Your task to perform on an android device: Show the shopping cart on amazon.com. Search for "usb-a" on amazon.com, select the first entry, add it to the cart, then select checkout. Image 0: 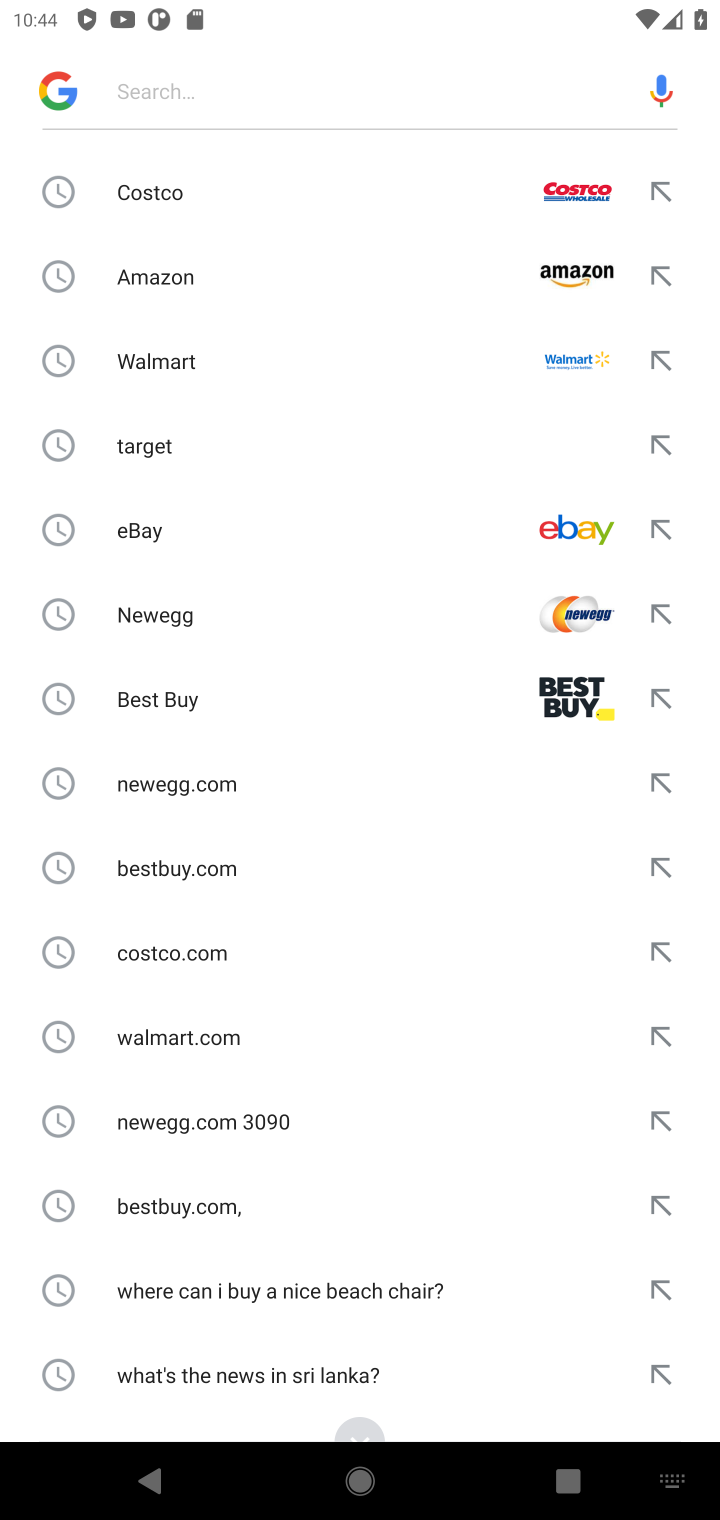
Step 0: click (194, 289)
Your task to perform on an android device: Show the shopping cart on amazon.com. Search for "usb-a" on amazon.com, select the first entry, add it to the cart, then select checkout. Image 1: 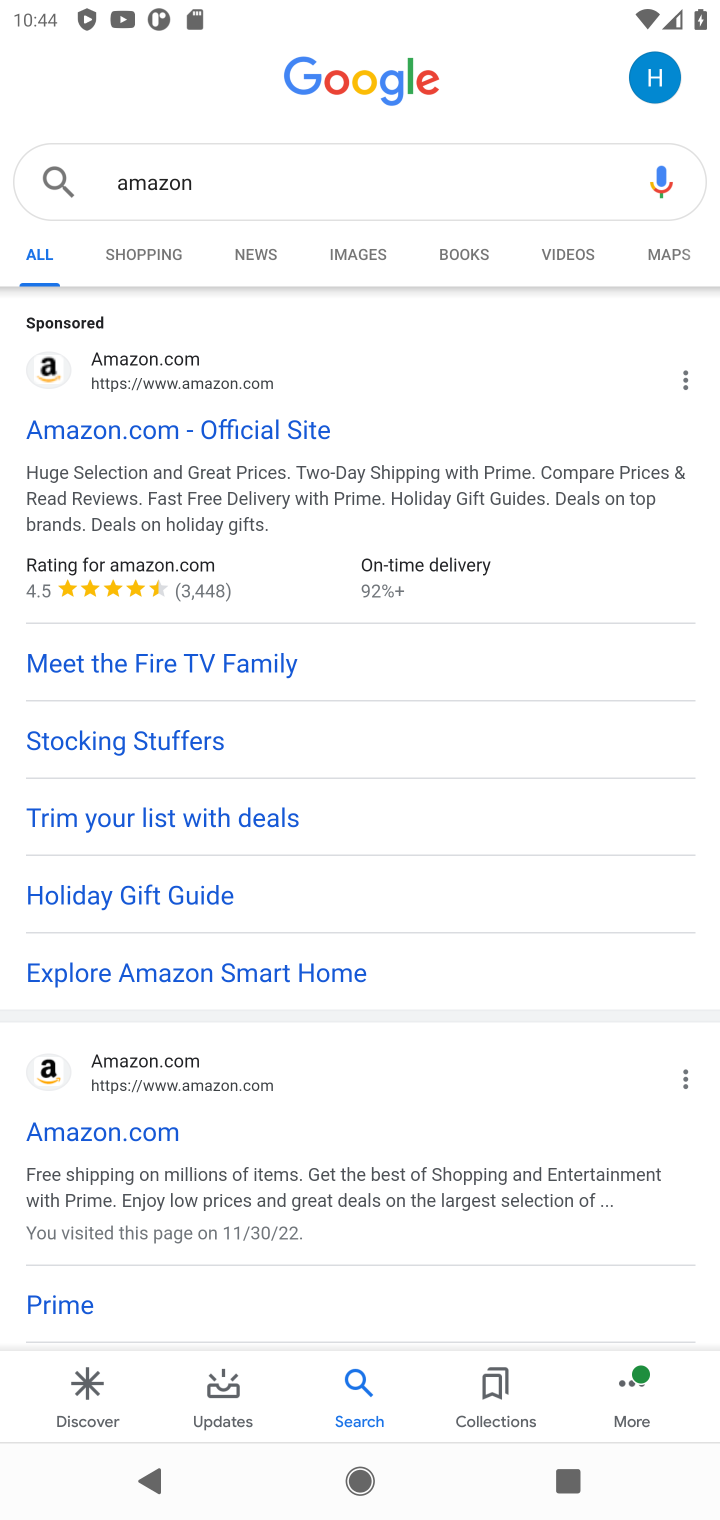
Step 1: click (176, 436)
Your task to perform on an android device: Show the shopping cart on amazon.com. Search for "usb-a" on amazon.com, select the first entry, add it to the cart, then select checkout. Image 2: 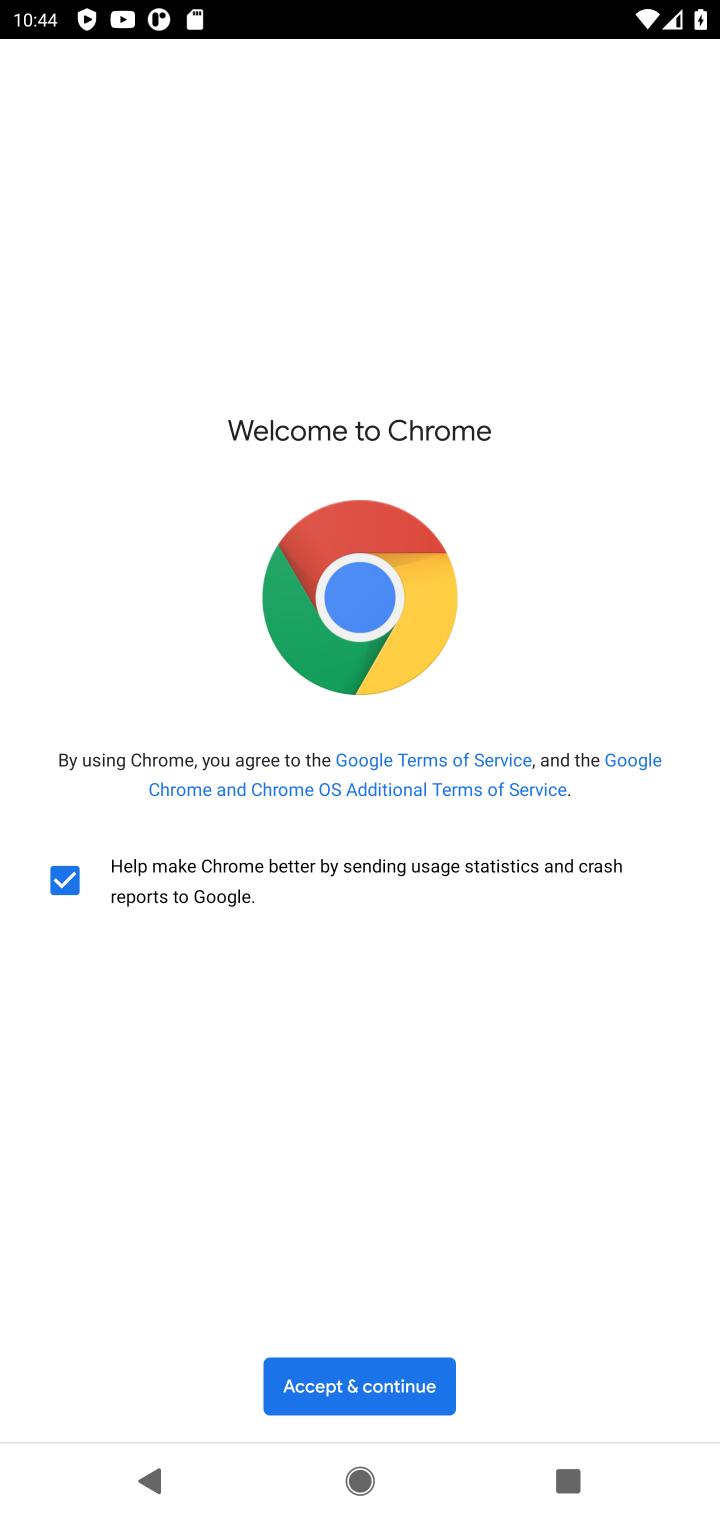
Step 2: click (333, 1391)
Your task to perform on an android device: Show the shopping cart on amazon.com. Search for "usb-a" on amazon.com, select the first entry, add it to the cart, then select checkout. Image 3: 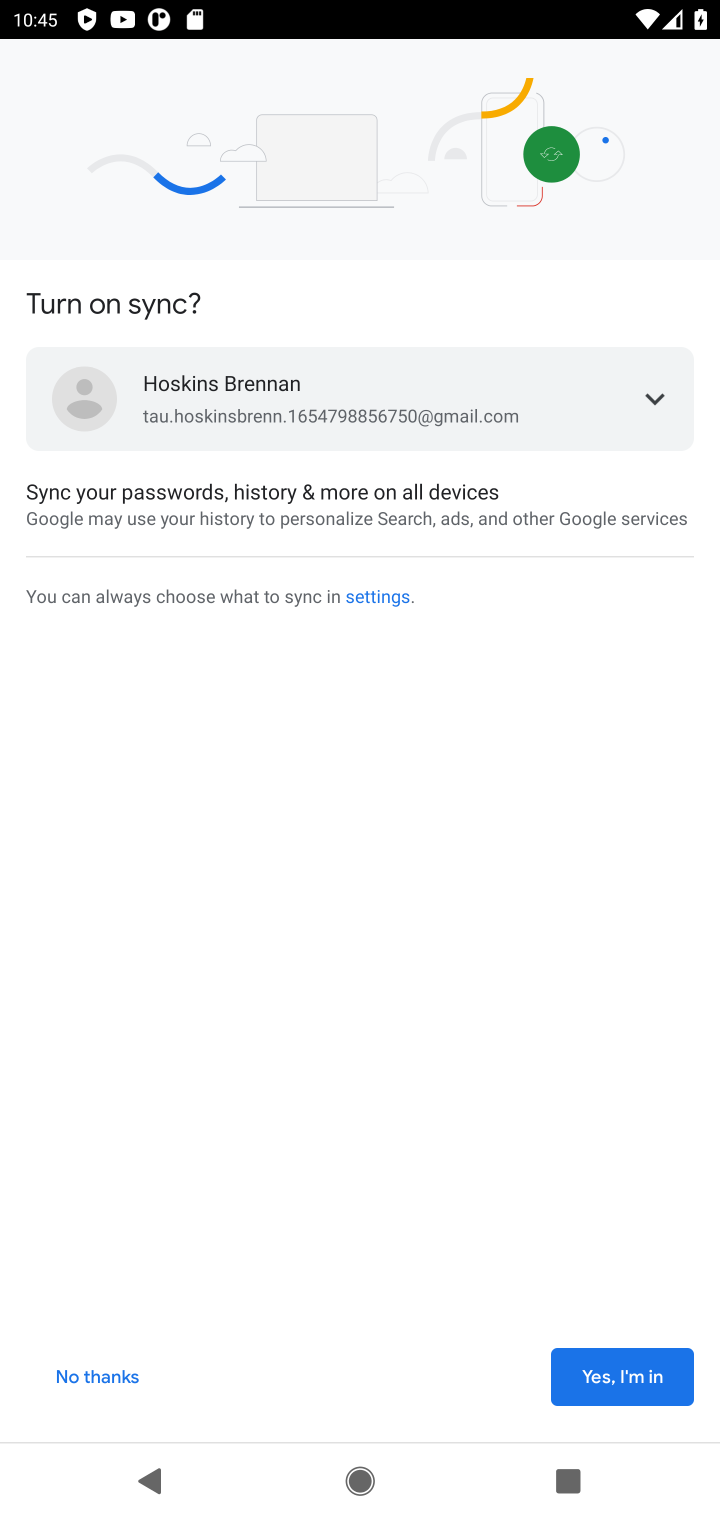
Step 3: click (604, 1372)
Your task to perform on an android device: Show the shopping cart on amazon.com. Search for "usb-a" on amazon.com, select the first entry, add it to the cart, then select checkout. Image 4: 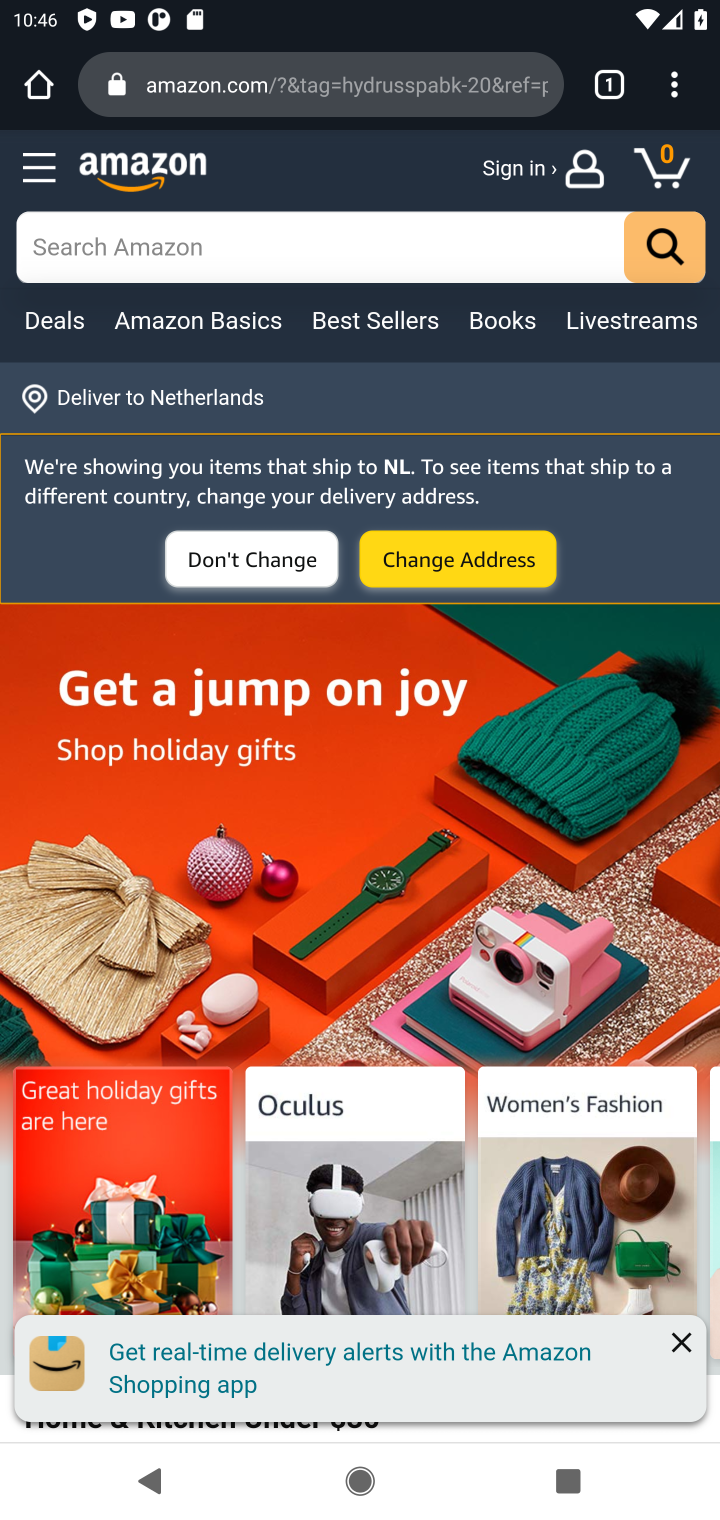
Step 4: click (304, 254)
Your task to perform on an android device: Show the shopping cart on amazon.com. Search for "usb-a" on amazon.com, select the first entry, add it to the cart, then select checkout. Image 5: 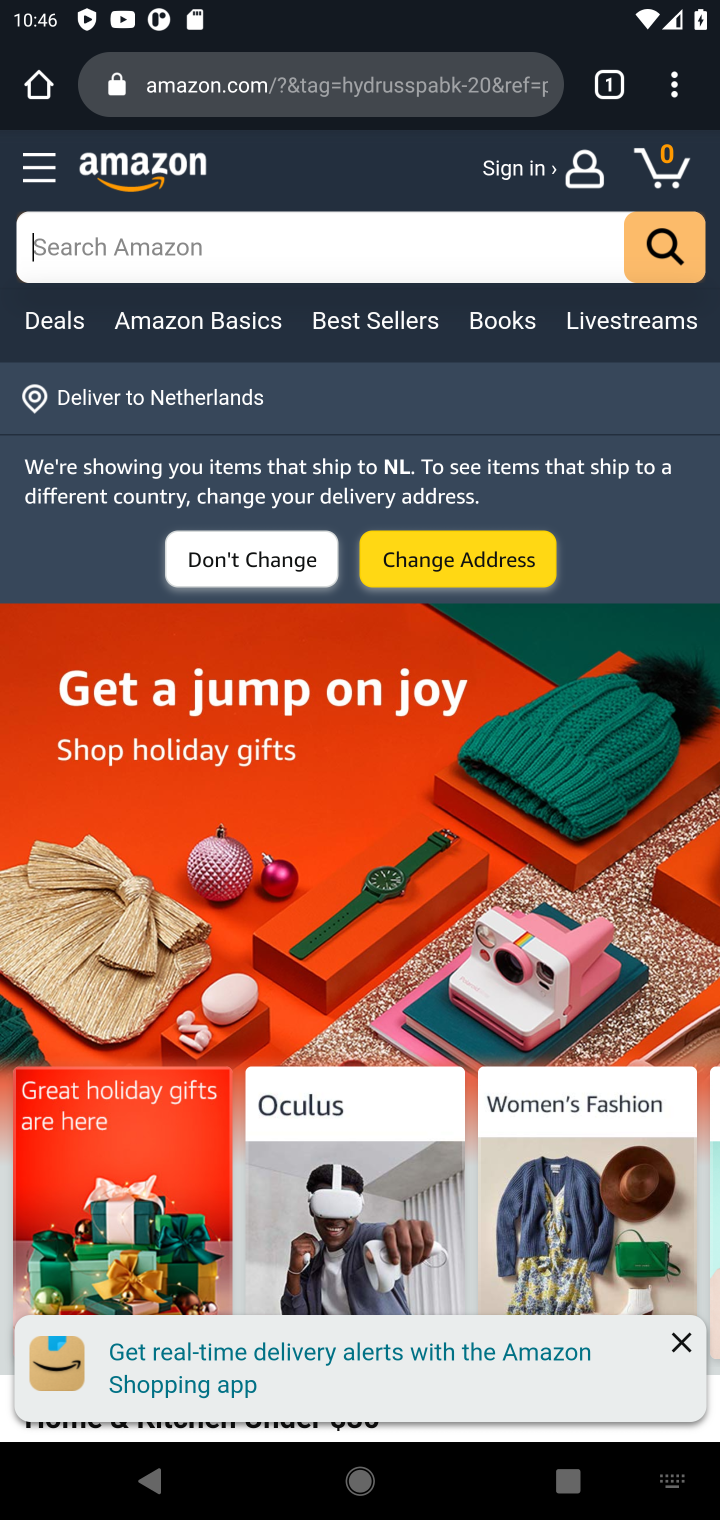
Step 5: type "usb-a"
Your task to perform on an android device: Show the shopping cart on amazon.com. Search for "usb-a" on amazon.com, select the first entry, add it to the cart, then select checkout. Image 6: 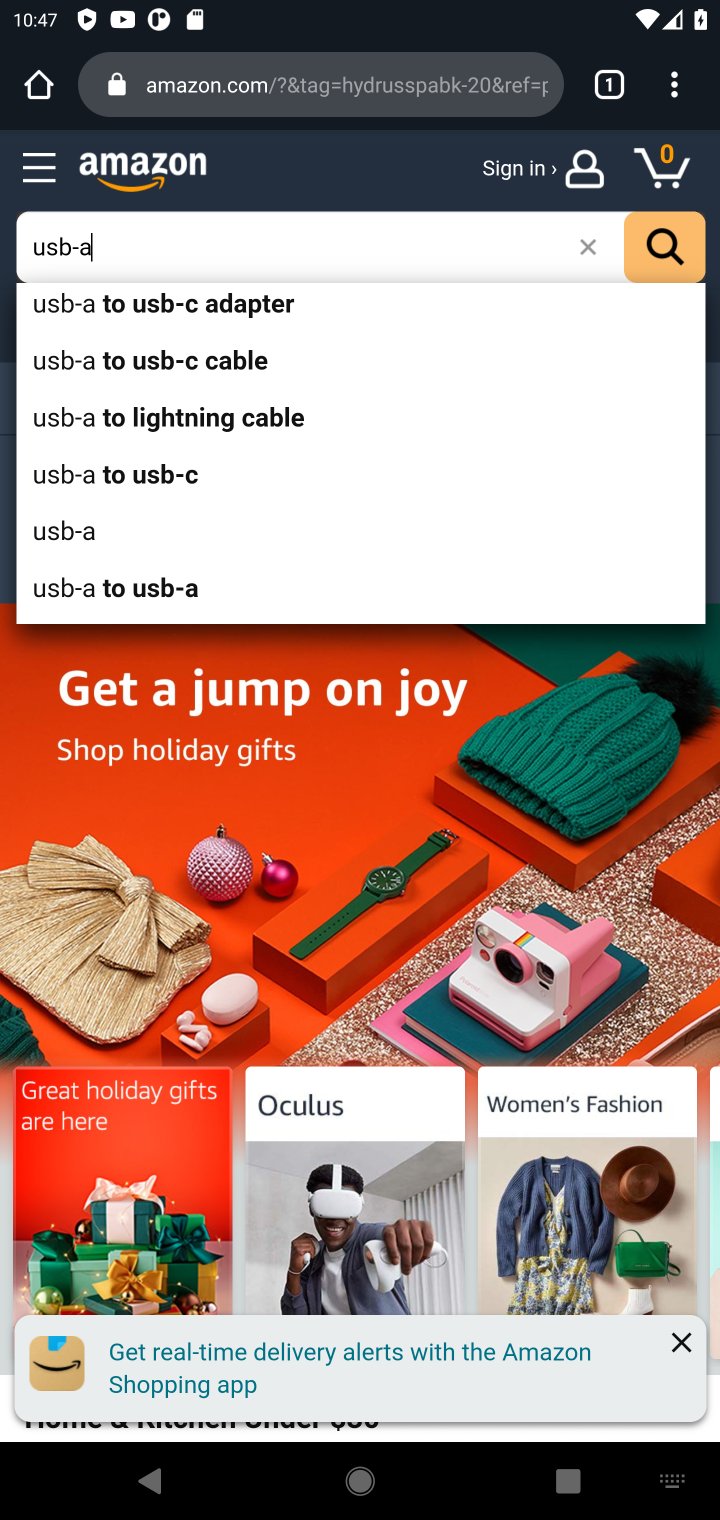
Step 6: click (285, 312)
Your task to perform on an android device: Show the shopping cart on amazon.com. Search for "usb-a" on amazon.com, select the first entry, add it to the cart, then select checkout. Image 7: 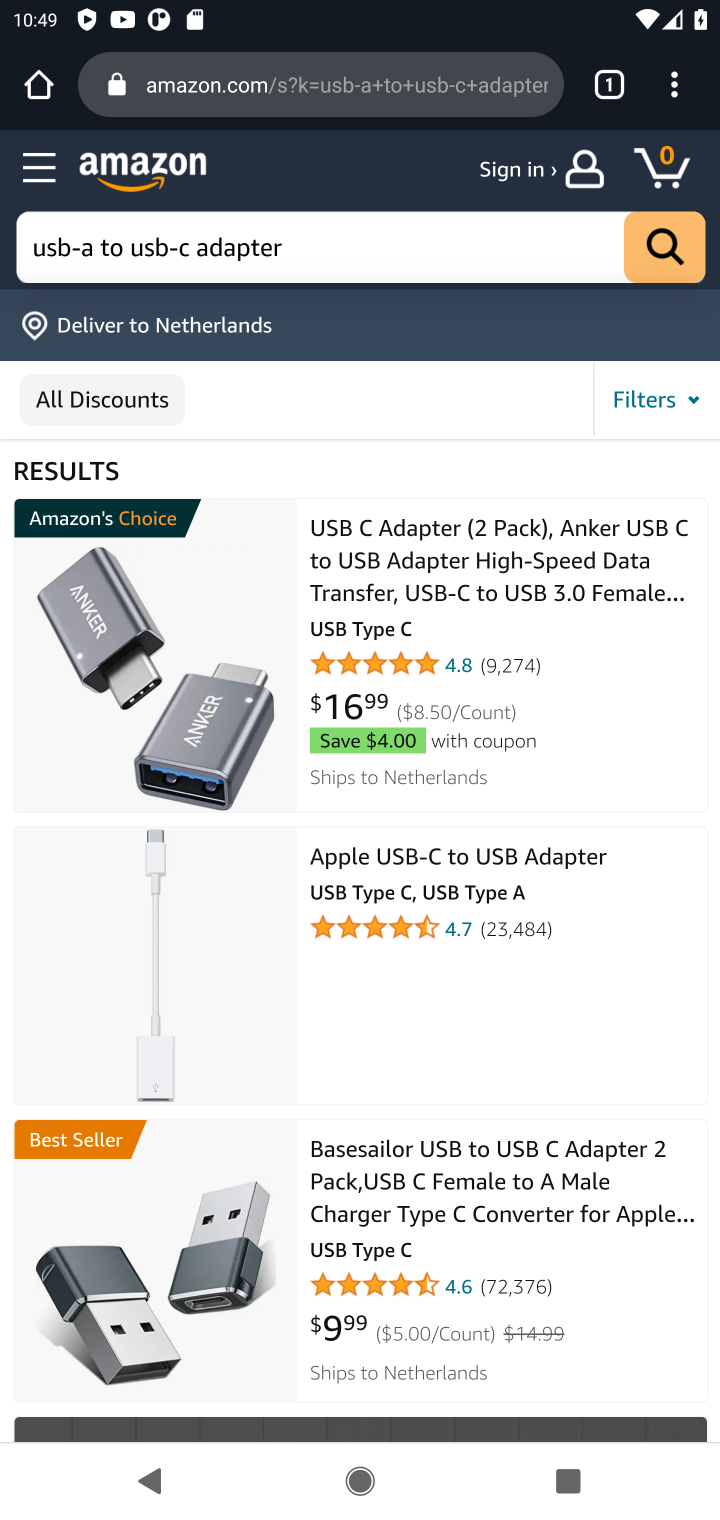
Step 7: click (460, 624)
Your task to perform on an android device: Show the shopping cart on amazon.com. Search for "usb-a" on amazon.com, select the first entry, add it to the cart, then select checkout. Image 8: 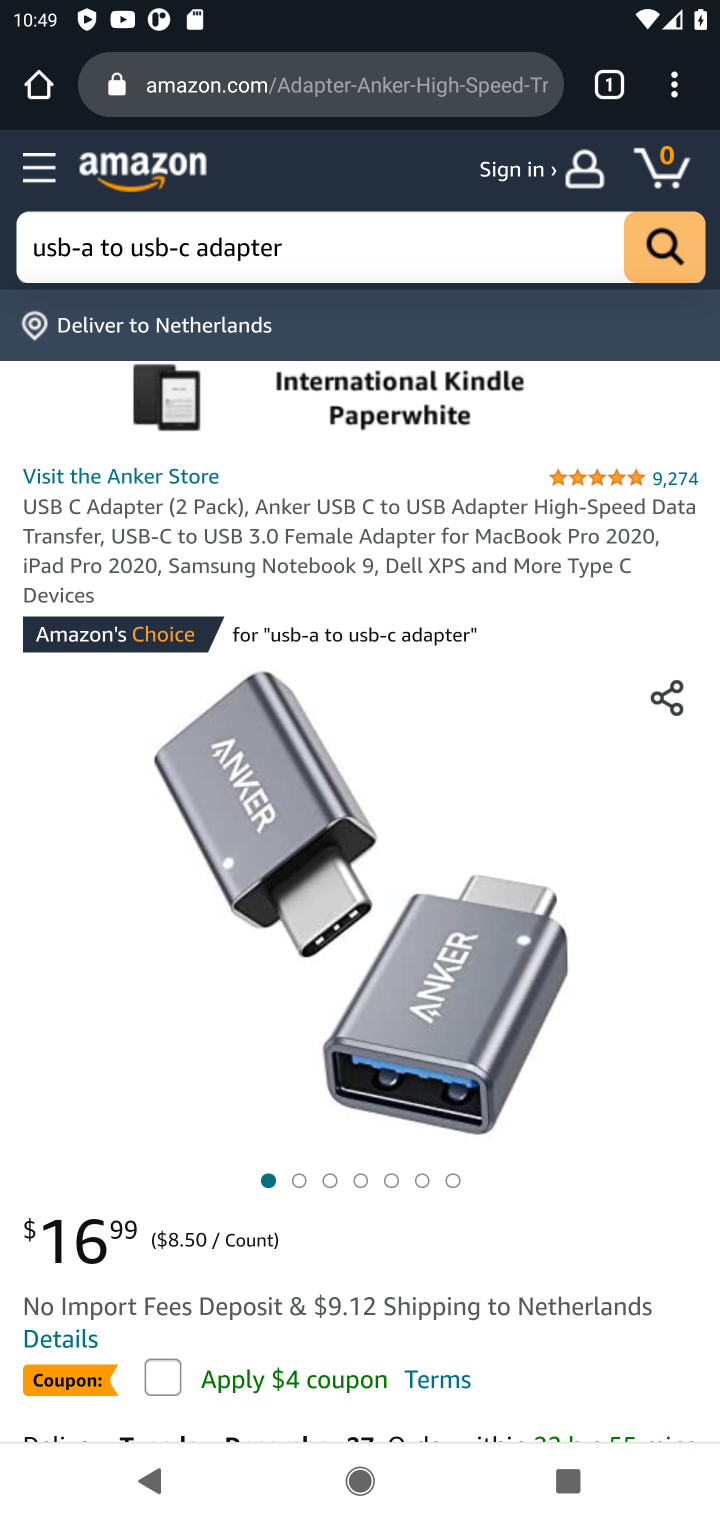
Step 8: drag from (603, 1227) to (437, 347)
Your task to perform on an android device: Show the shopping cart on amazon.com. Search for "usb-a" on amazon.com, select the first entry, add it to the cart, then select checkout. Image 9: 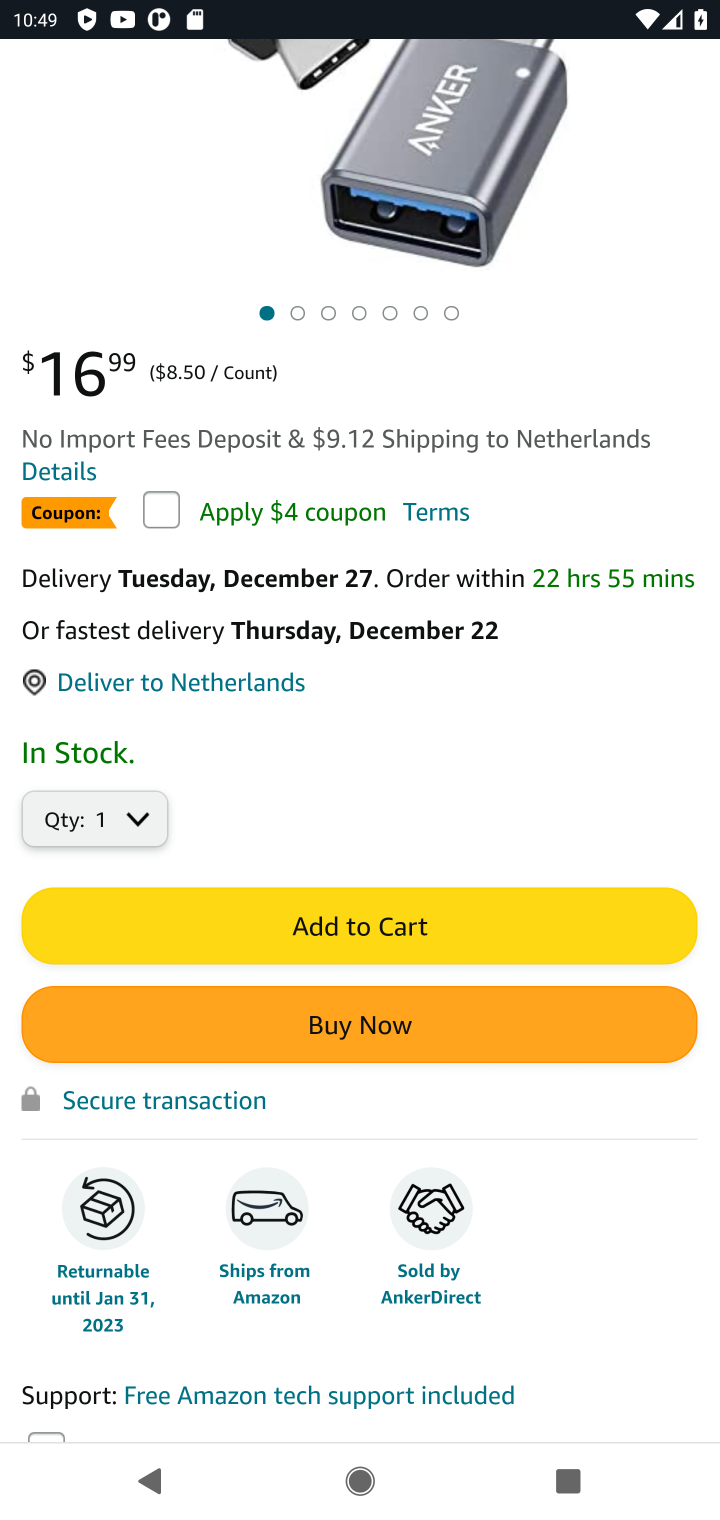
Step 9: click (364, 923)
Your task to perform on an android device: Show the shopping cart on amazon.com. Search for "usb-a" on amazon.com, select the first entry, add it to the cart, then select checkout. Image 10: 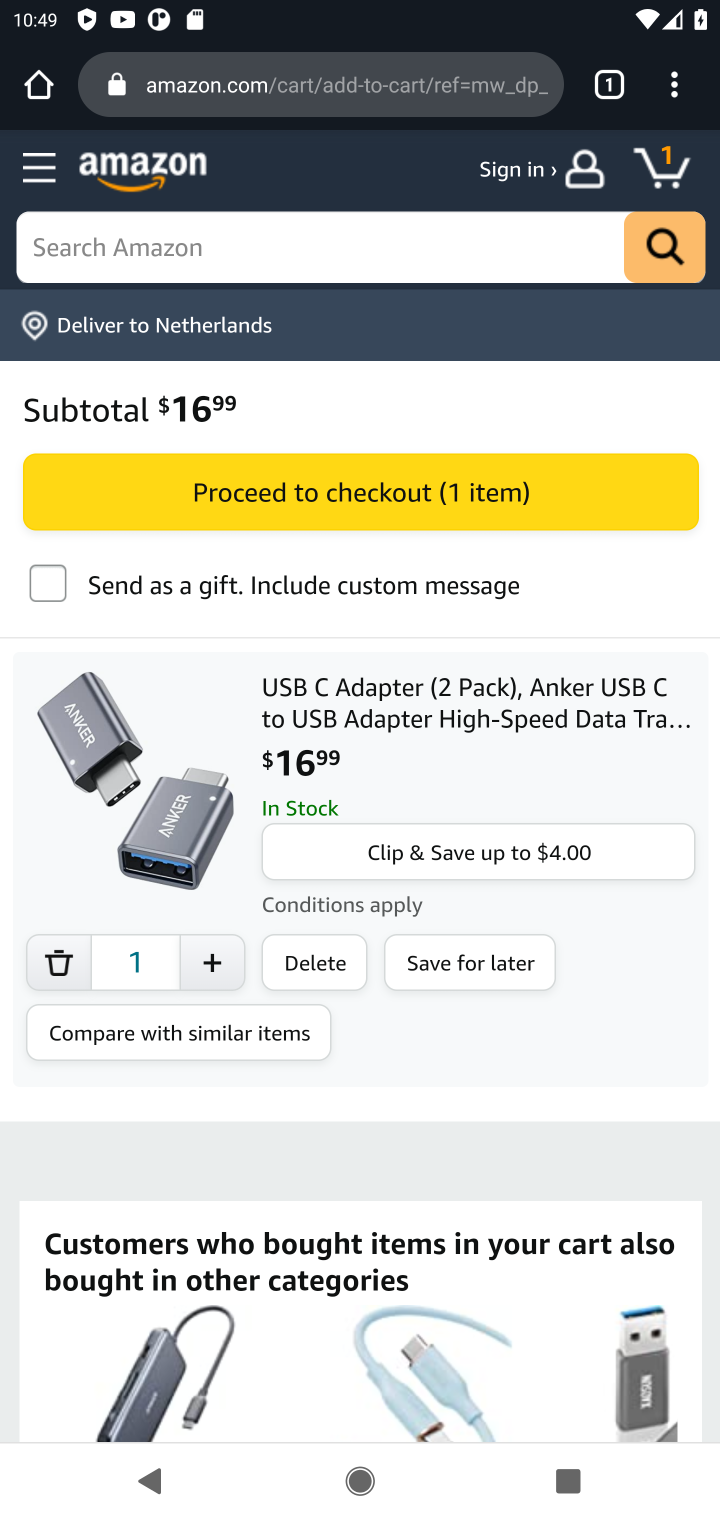
Step 10: click (302, 511)
Your task to perform on an android device: Show the shopping cart on amazon.com. Search for "usb-a" on amazon.com, select the first entry, add it to the cart, then select checkout. Image 11: 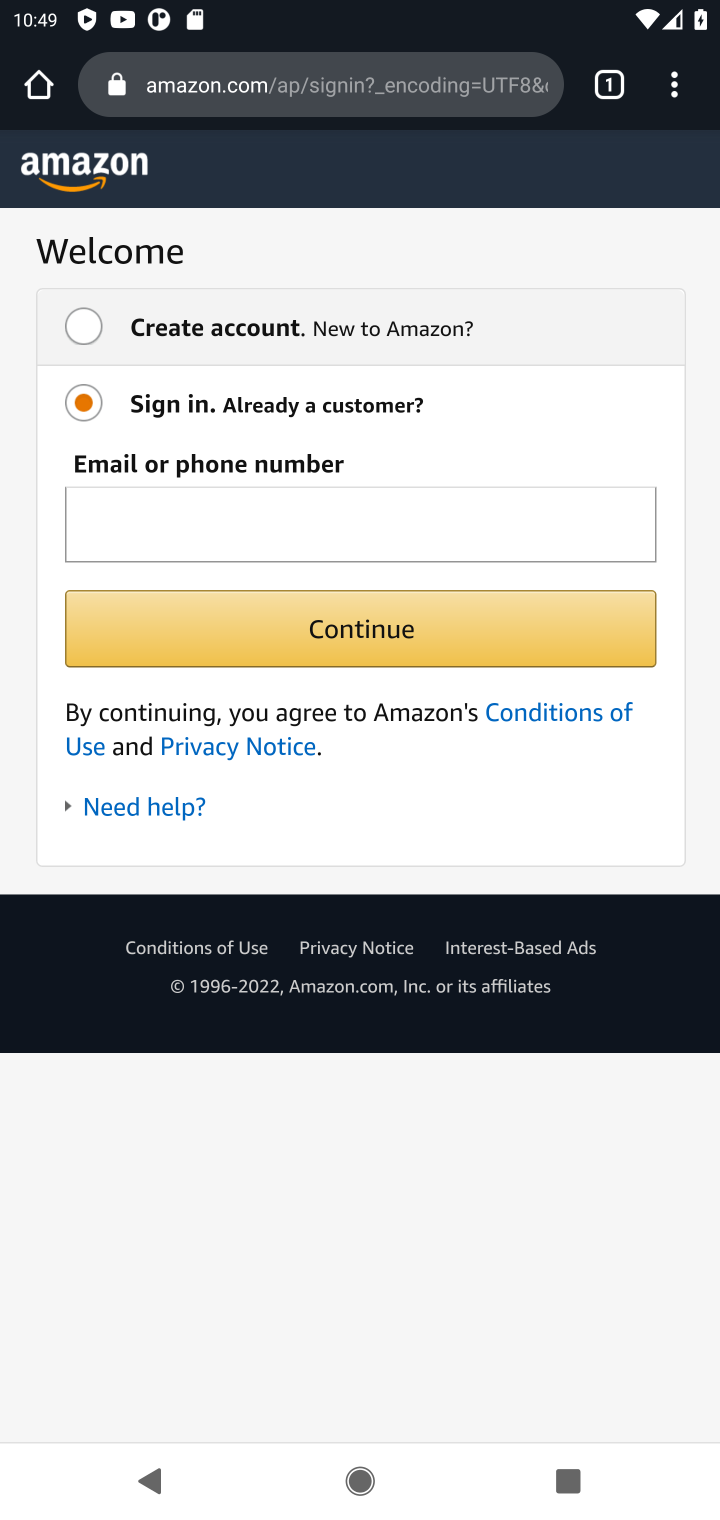
Step 11: task complete